Your task to perform on an android device: Open internet settings Image 0: 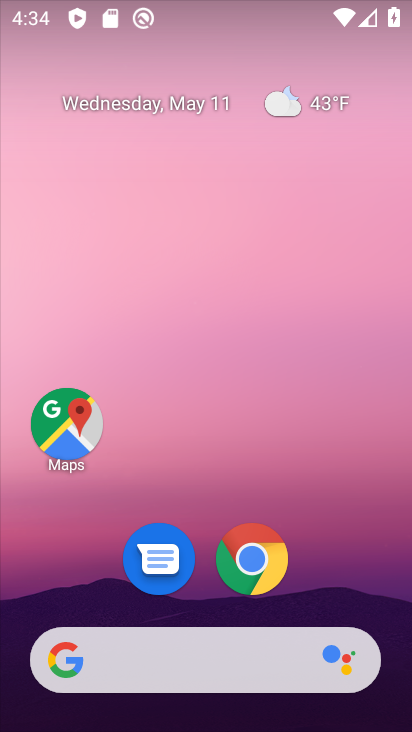
Step 0: drag from (321, 584) to (319, 179)
Your task to perform on an android device: Open internet settings Image 1: 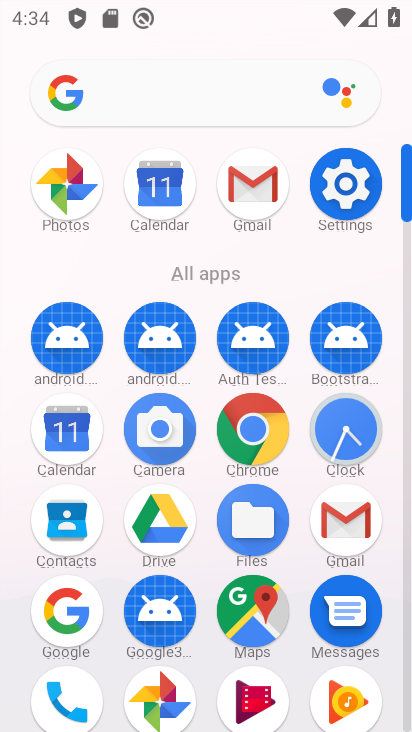
Step 1: click (349, 197)
Your task to perform on an android device: Open internet settings Image 2: 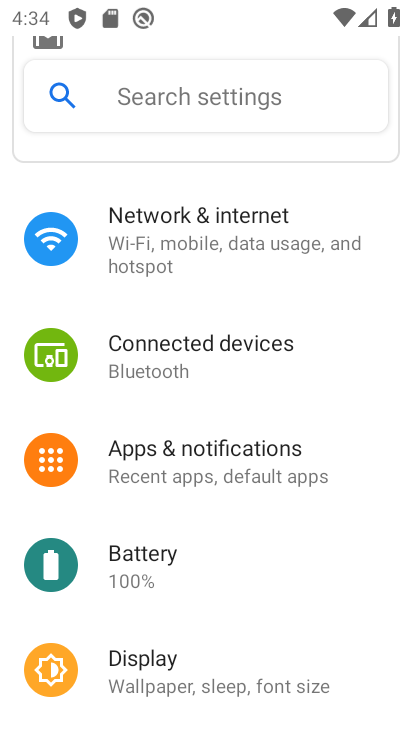
Step 2: drag from (194, 641) to (204, 290)
Your task to perform on an android device: Open internet settings Image 3: 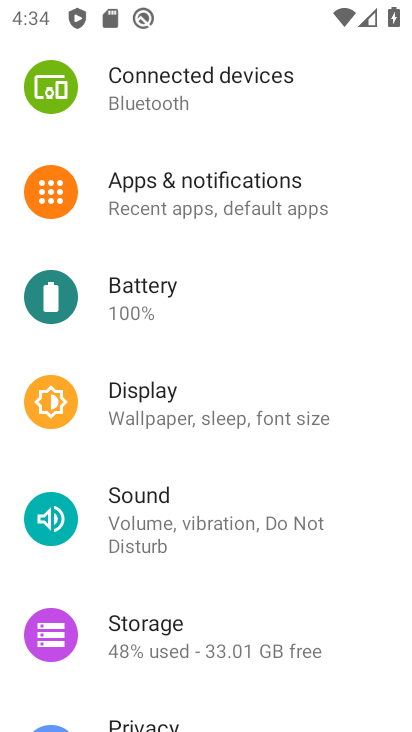
Step 3: drag from (223, 267) to (182, 700)
Your task to perform on an android device: Open internet settings Image 4: 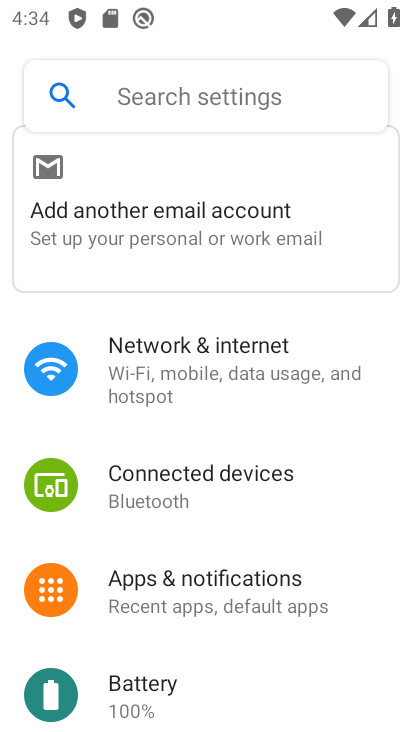
Step 4: click (196, 365)
Your task to perform on an android device: Open internet settings Image 5: 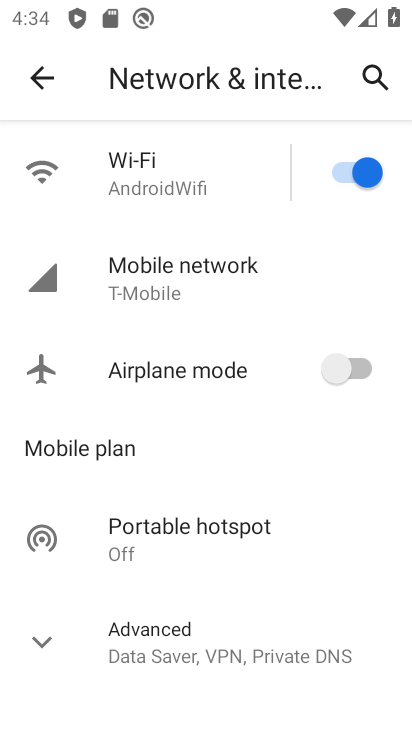
Step 5: drag from (194, 625) to (250, 385)
Your task to perform on an android device: Open internet settings Image 6: 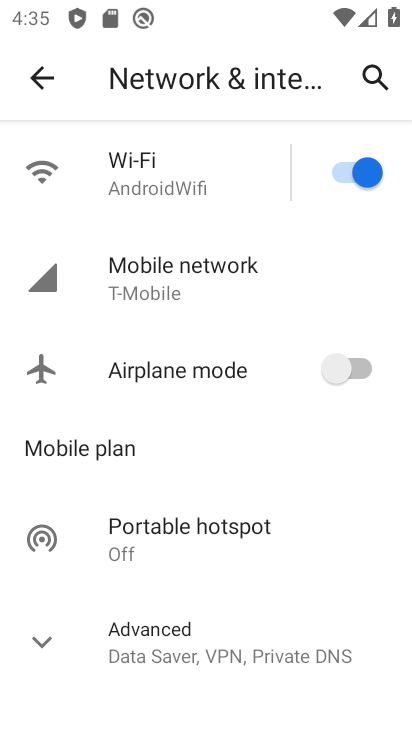
Step 6: click (166, 258)
Your task to perform on an android device: Open internet settings Image 7: 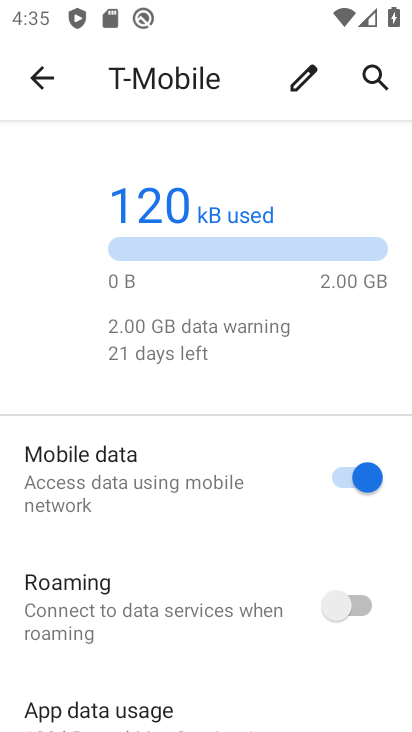
Step 7: task complete